Your task to perform on an android device: Open Reddit.com Image 0: 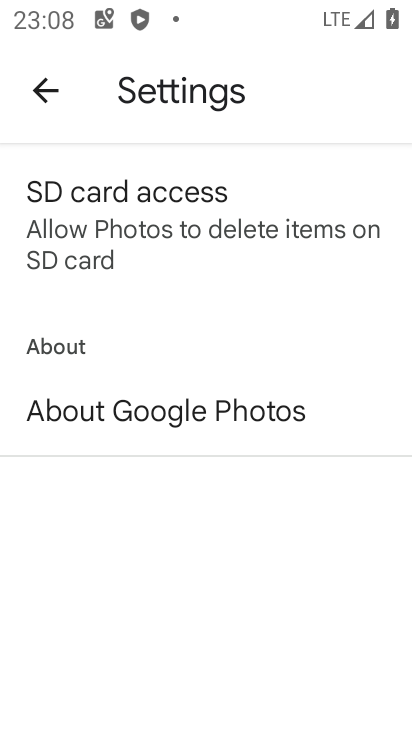
Step 0: press home button
Your task to perform on an android device: Open Reddit.com Image 1: 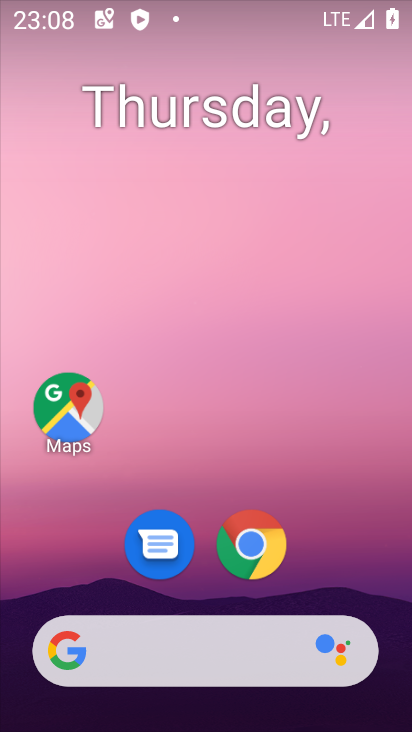
Step 1: click (263, 559)
Your task to perform on an android device: Open Reddit.com Image 2: 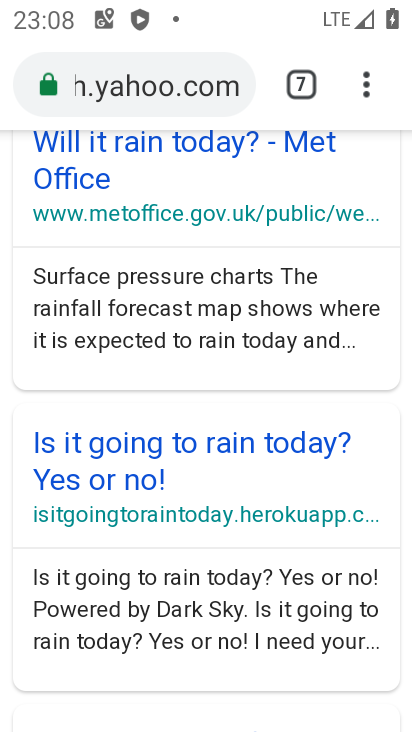
Step 2: click (300, 89)
Your task to perform on an android device: Open Reddit.com Image 3: 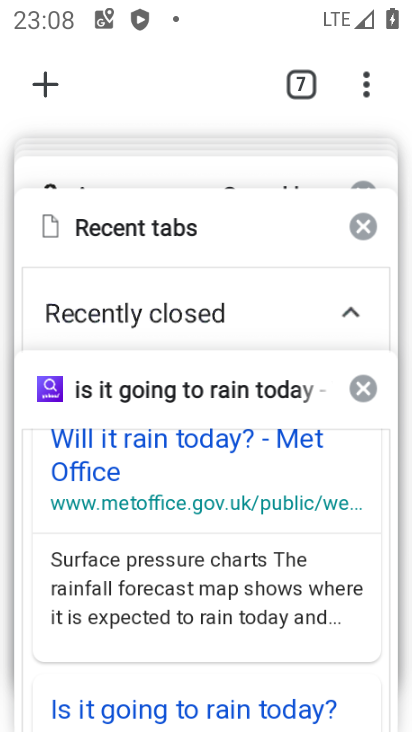
Step 3: drag from (206, 248) to (205, 657)
Your task to perform on an android device: Open Reddit.com Image 4: 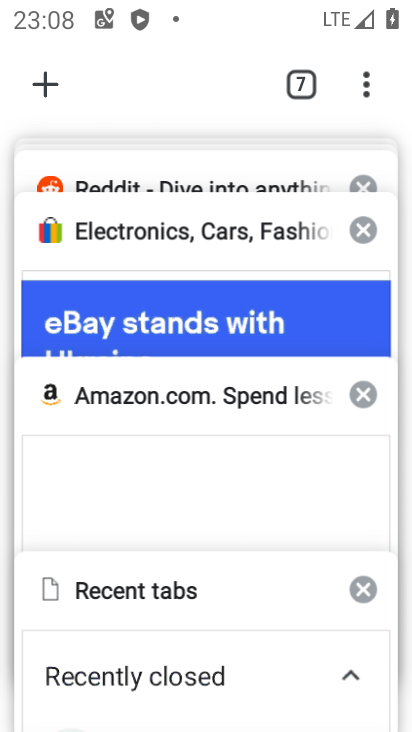
Step 4: drag from (165, 223) to (171, 612)
Your task to perform on an android device: Open Reddit.com Image 5: 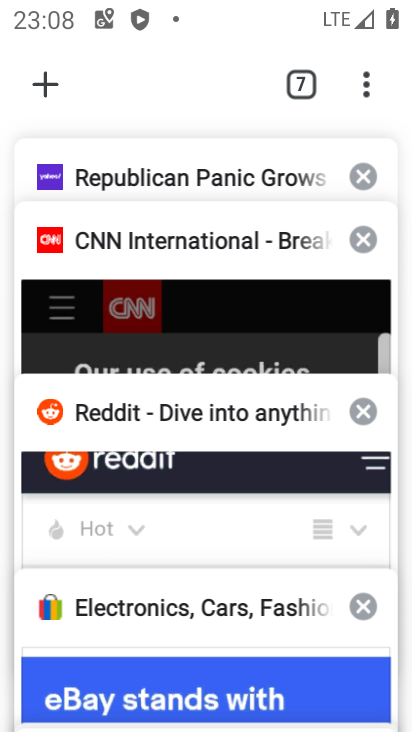
Step 5: click (163, 482)
Your task to perform on an android device: Open Reddit.com Image 6: 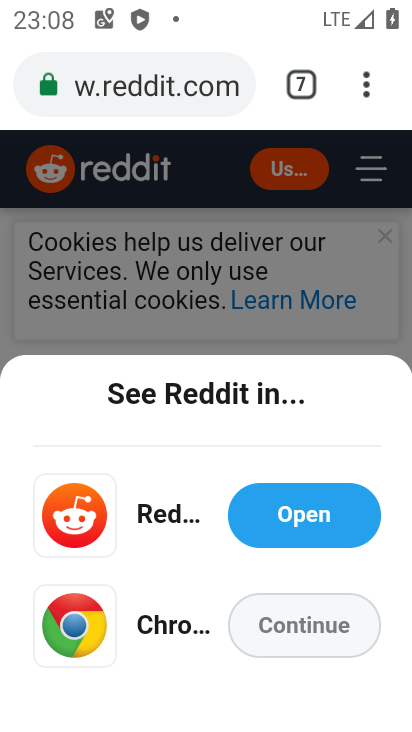
Step 6: task complete